Your task to perform on an android device: toggle notifications settings in the gmail app Image 0: 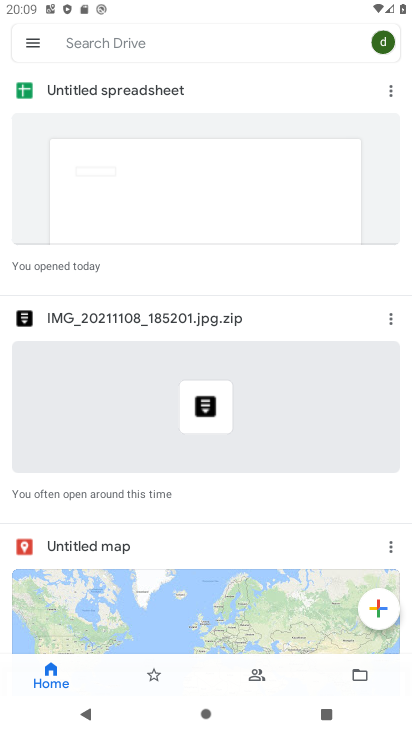
Step 0: press home button
Your task to perform on an android device: toggle notifications settings in the gmail app Image 1: 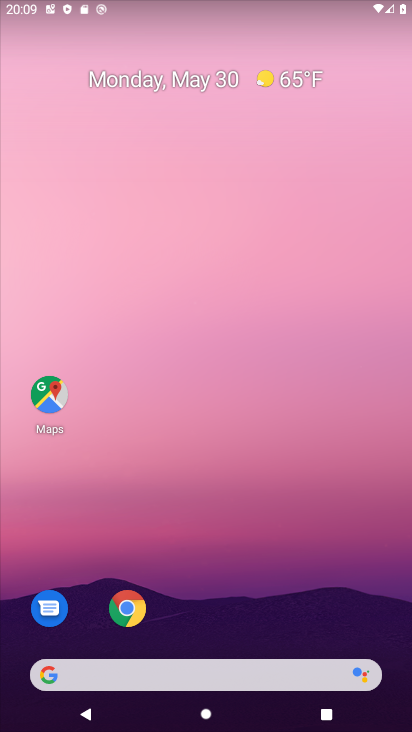
Step 1: drag from (220, 642) to (239, 206)
Your task to perform on an android device: toggle notifications settings in the gmail app Image 2: 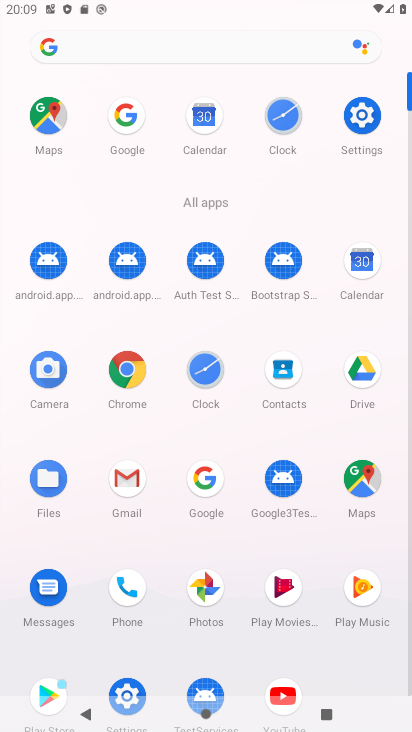
Step 2: click (131, 501)
Your task to perform on an android device: toggle notifications settings in the gmail app Image 3: 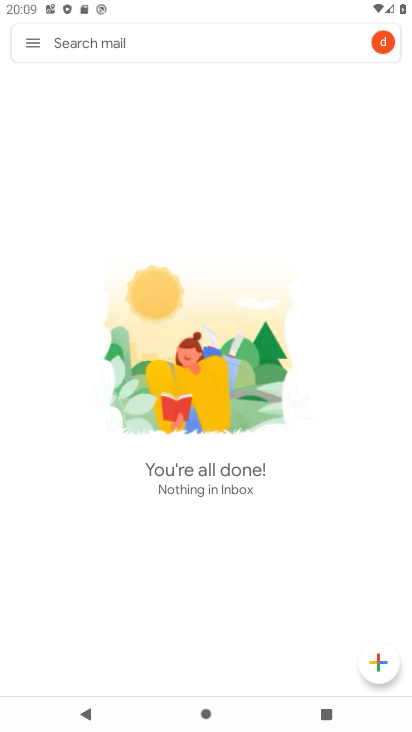
Step 3: click (35, 37)
Your task to perform on an android device: toggle notifications settings in the gmail app Image 4: 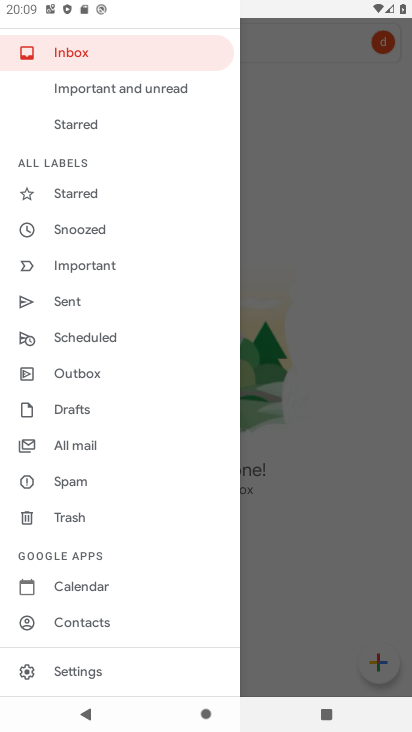
Step 4: click (99, 660)
Your task to perform on an android device: toggle notifications settings in the gmail app Image 5: 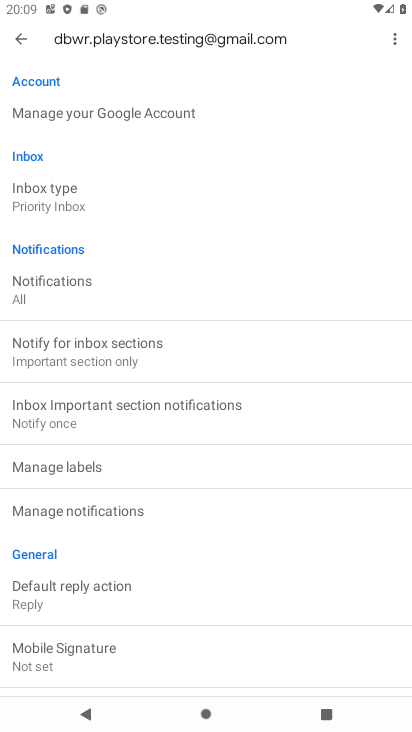
Step 5: click (109, 511)
Your task to perform on an android device: toggle notifications settings in the gmail app Image 6: 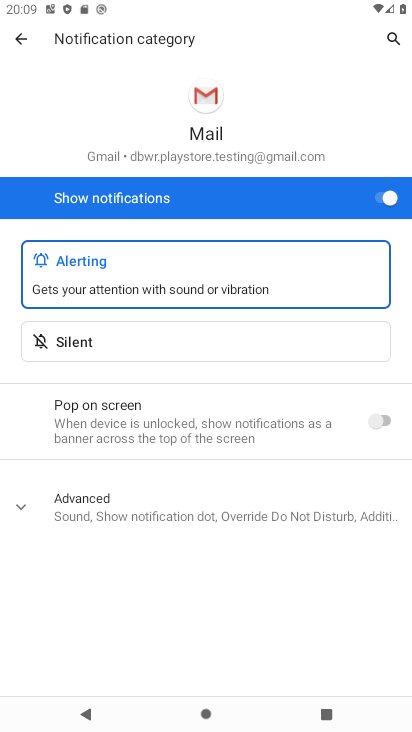
Step 6: click (392, 211)
Your task to perform on an android device: toggle notifications settings in the gmail app Image 7: 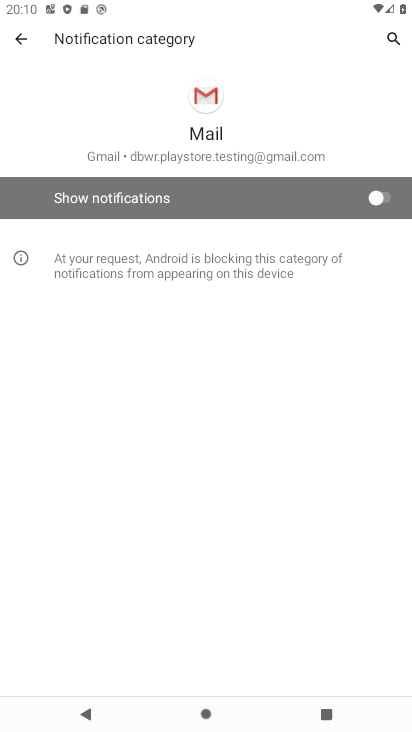
Step 7: task complete